Your task to perform on an android device: turn off priority inbox in the gmail app Image 0: 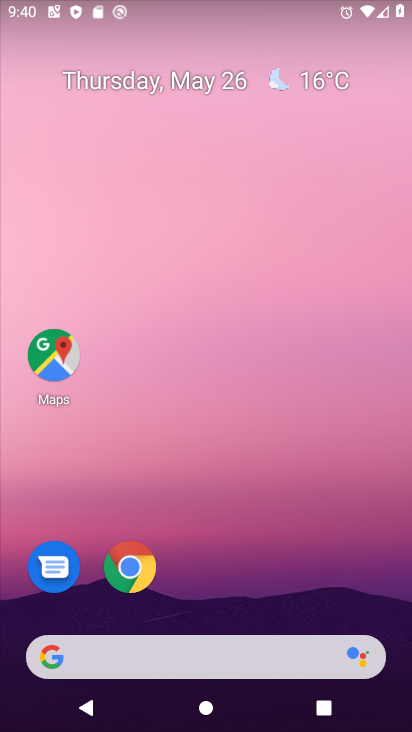
Step 0: click (382, 177)
Your task to perform on an android device: turn off priority inbox in the gmail app Image 1: 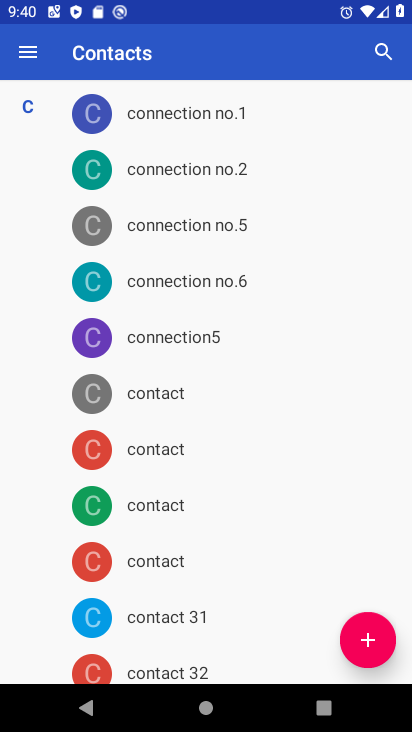
Step 1: press home button
Your task to perform on an android device: turn off priority inbox in the gmail app Image 2: 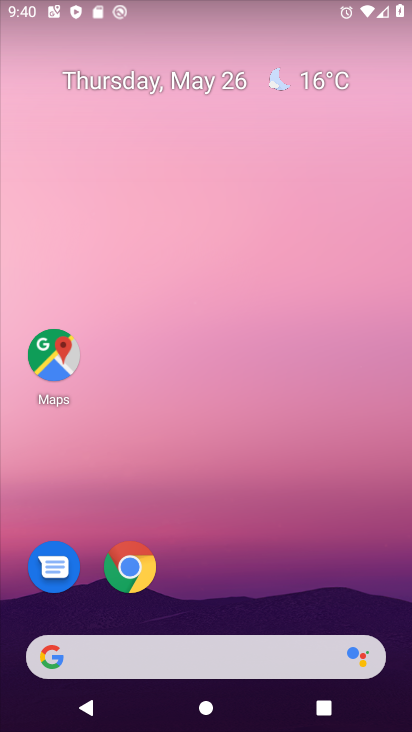
Step 2: drag from (373, 434) to (370, 137)
Your task to perform on an android device: turn off priority inbox in the gmail app Image 3: 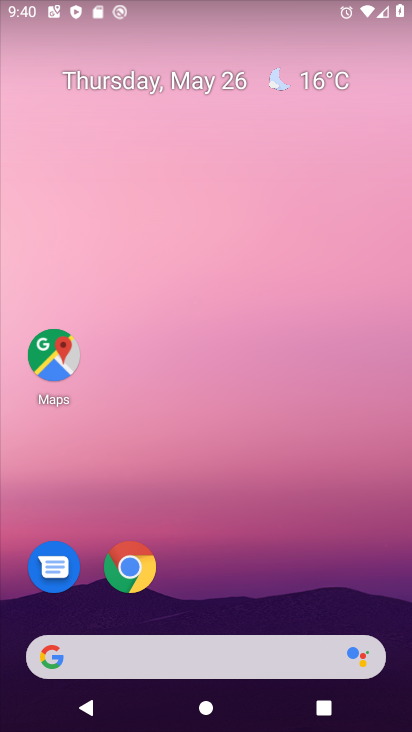
Step 3: drag from (398, 676) to (389, 182)
Your task to perform on an android device: turn off priority inbox in the gmail app Image 4: 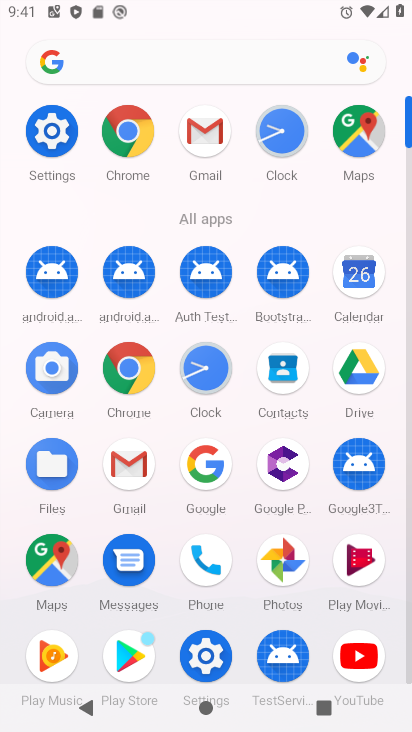
Step 4: click (191, 141)
Your task to perform on an android device: turn off priority inbox in the gmail app Image 5: 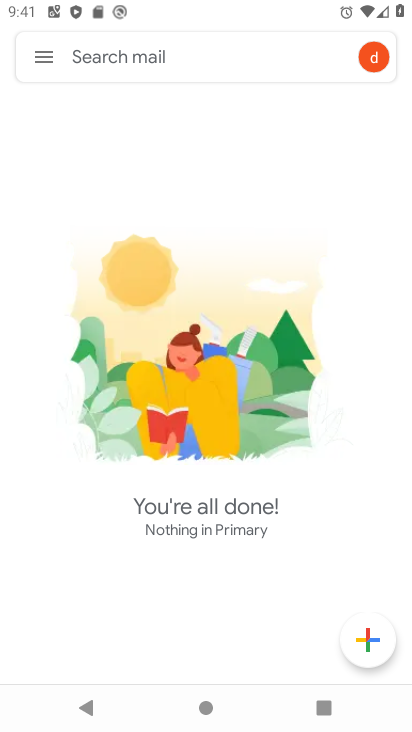
Step 5: click (39, 59)
Your task to perform on an android device: turn off priority inbox in the gmail app Image 6: 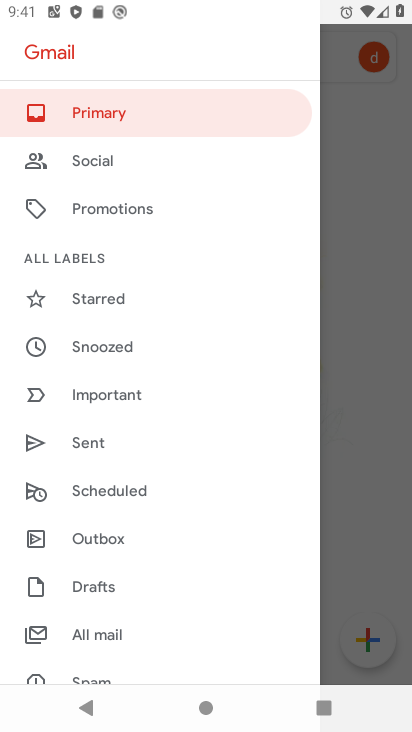
Step 6: drag from (189, 663) to (210, 181)
Your task to perform on an android device: turn off priority inbox in the gmail app Image 7: 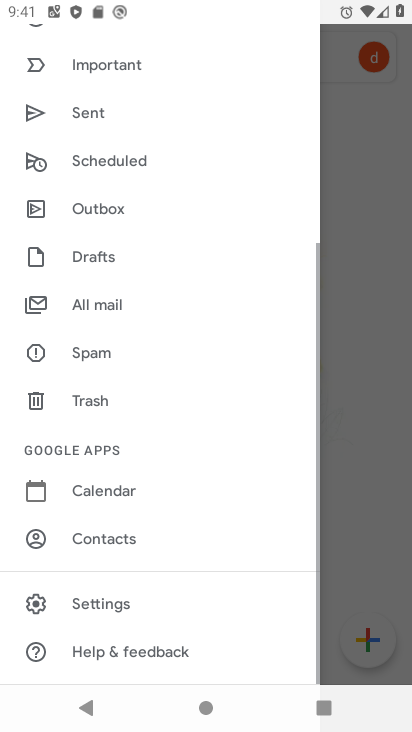
Step 7: click (96, 607)
Your task to perform on an android device: turn off priority inbox in the gmail app Image 8: 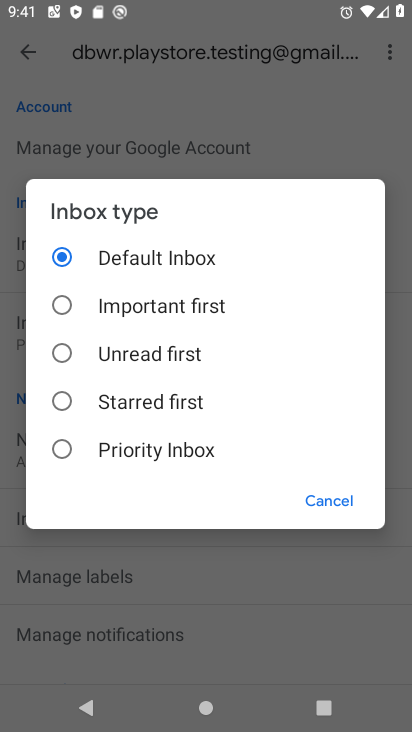
Step 8: click (60, 447)
Your task to perform on an android device: turn off priority inbox in the gmail app Image 9: 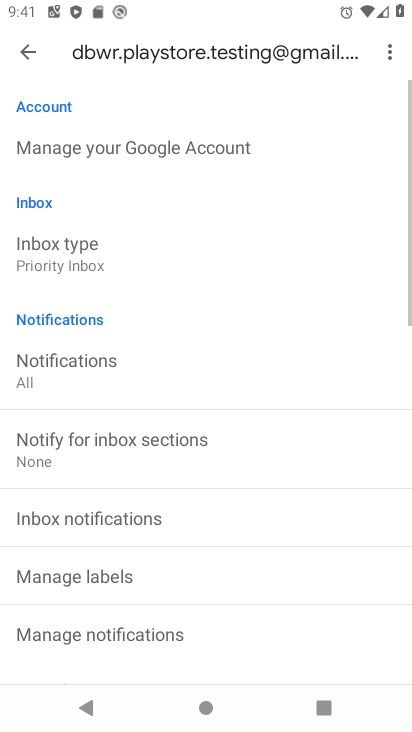
Step 9: click (54, 254)
Your task to perform on an android device: turn off priority inbox in the gmail app Image 10: 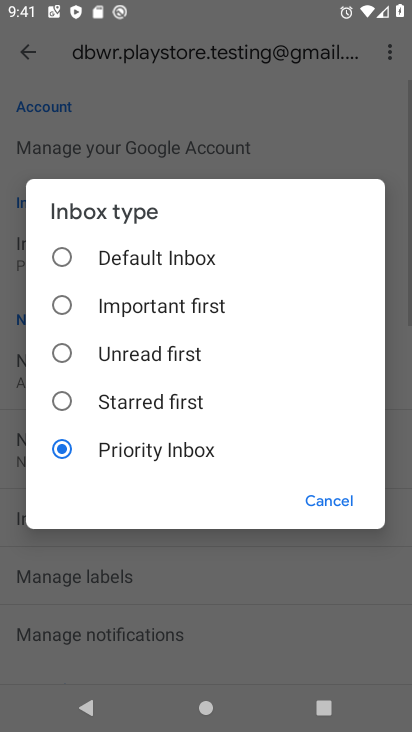
Step 10: click (59, 253)
Your task to perform on an android device: turn off priority inbox in the gmail app Image 11: 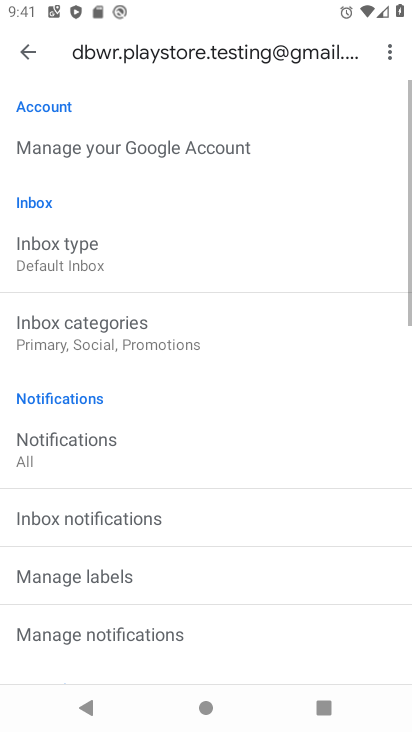
Step 11: task complete